Your task to perform on an android device: Search for "razer kraken" on amazon.com, select the first entry, add it to the cart, then select checkout. Image 0: 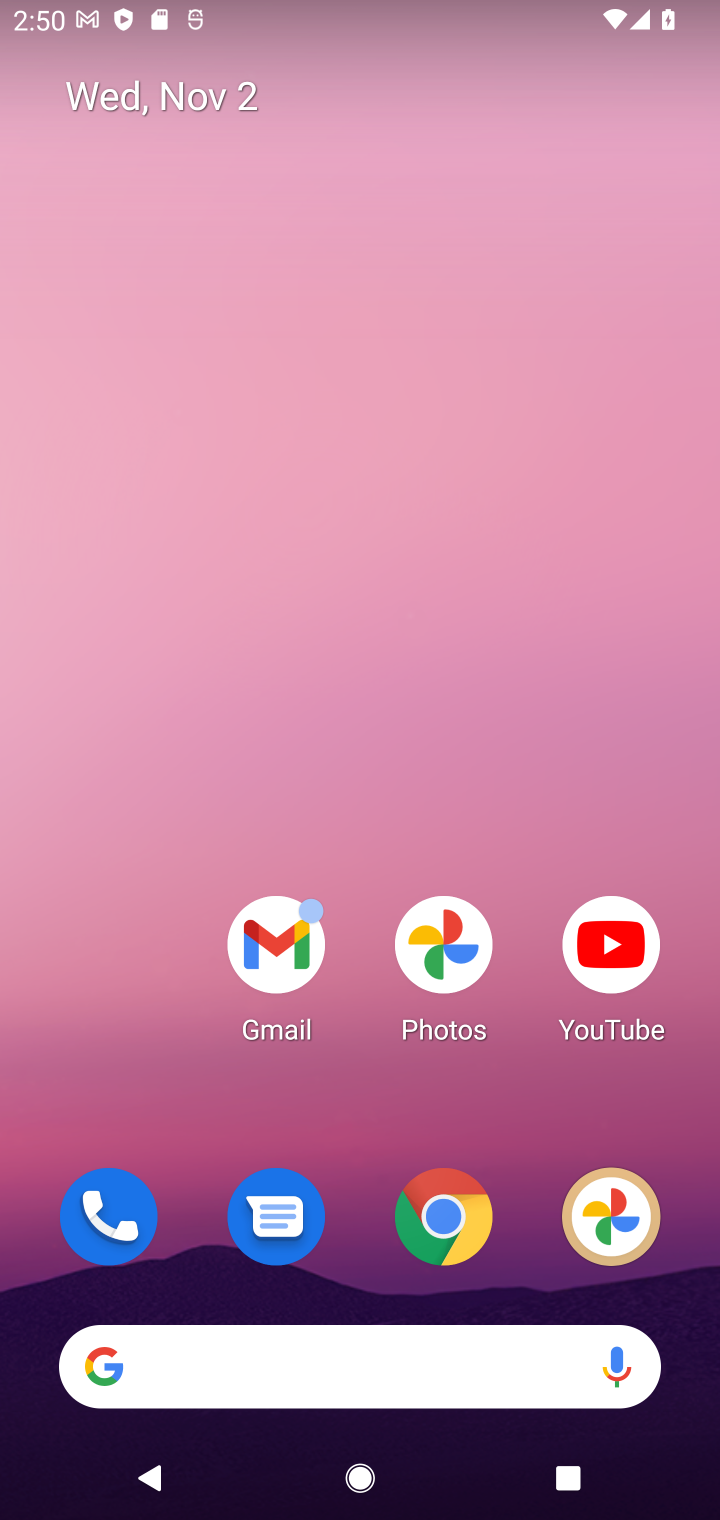
Step 0: click (449, 1201)
Your task to perform on an android device: Search for "razer kraken" on amazon.com, select the first entry, add it to the cart, then select checkout. Image 1: 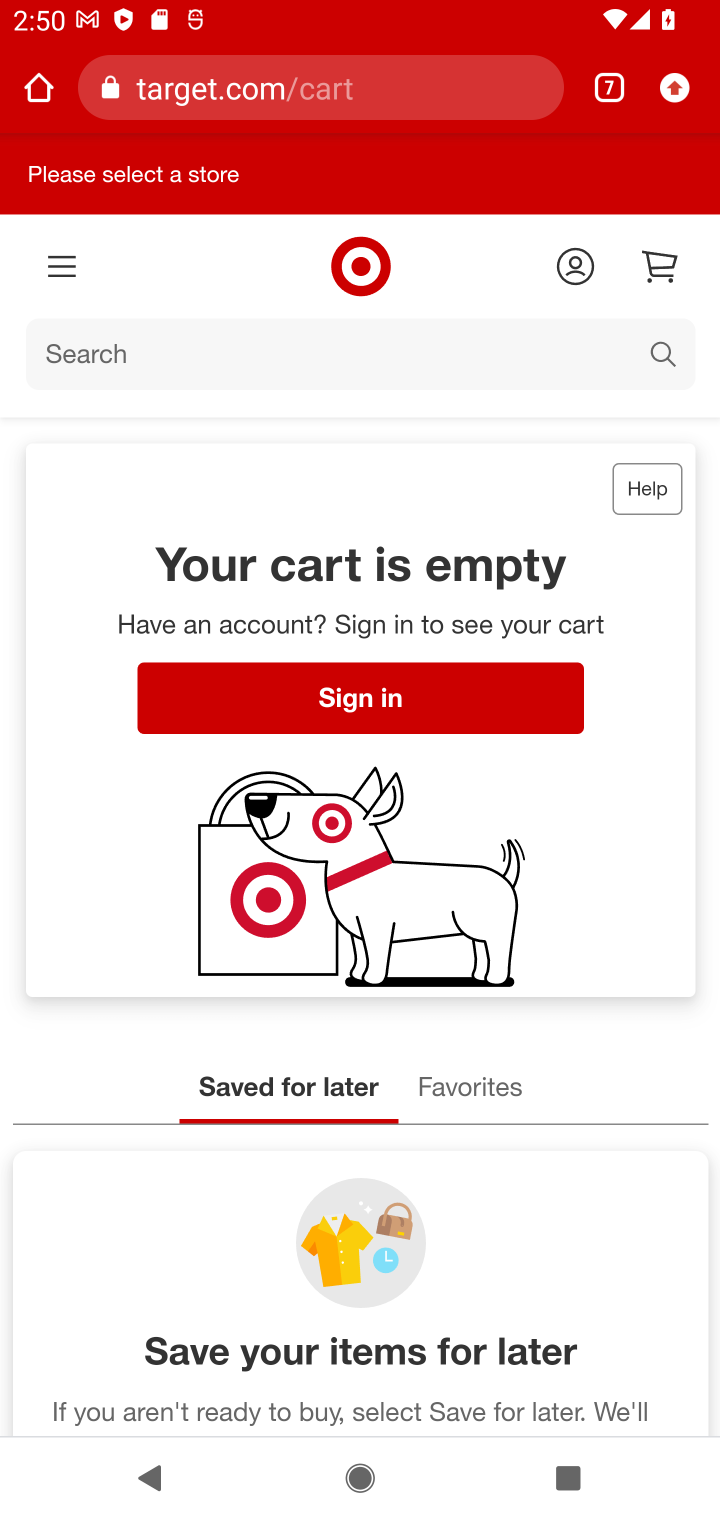
Step 1: click (612, 87)
Your task to perform on an android device: Search for "razer kraken" on amazon.com, select the first entry, add it to the cart, then select checkout. Image 2: 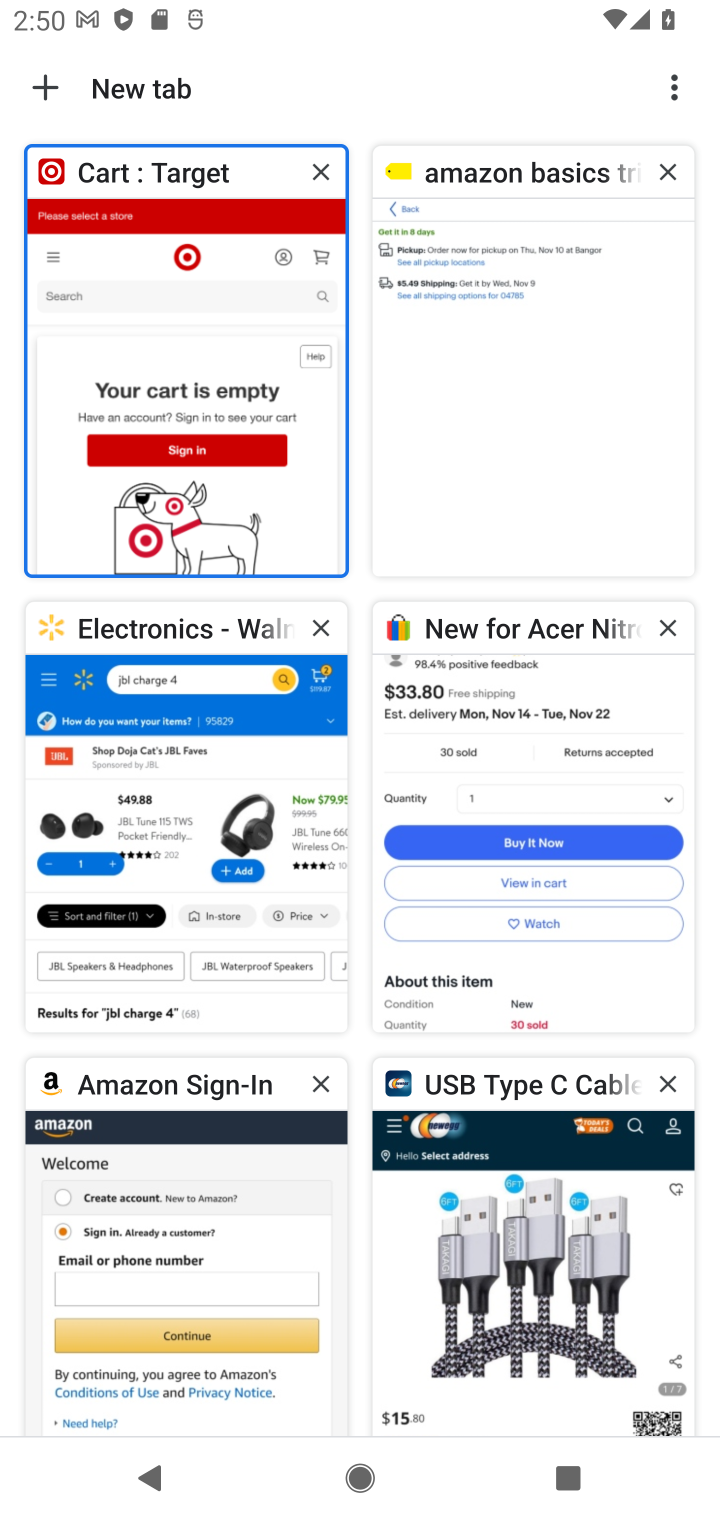
Step 2: click (239, 1255)
Your task to perform on an android device: Search for "razer kraken" on amazon.com, select the first entry, add it to the cart, then select checkout. Image 3: 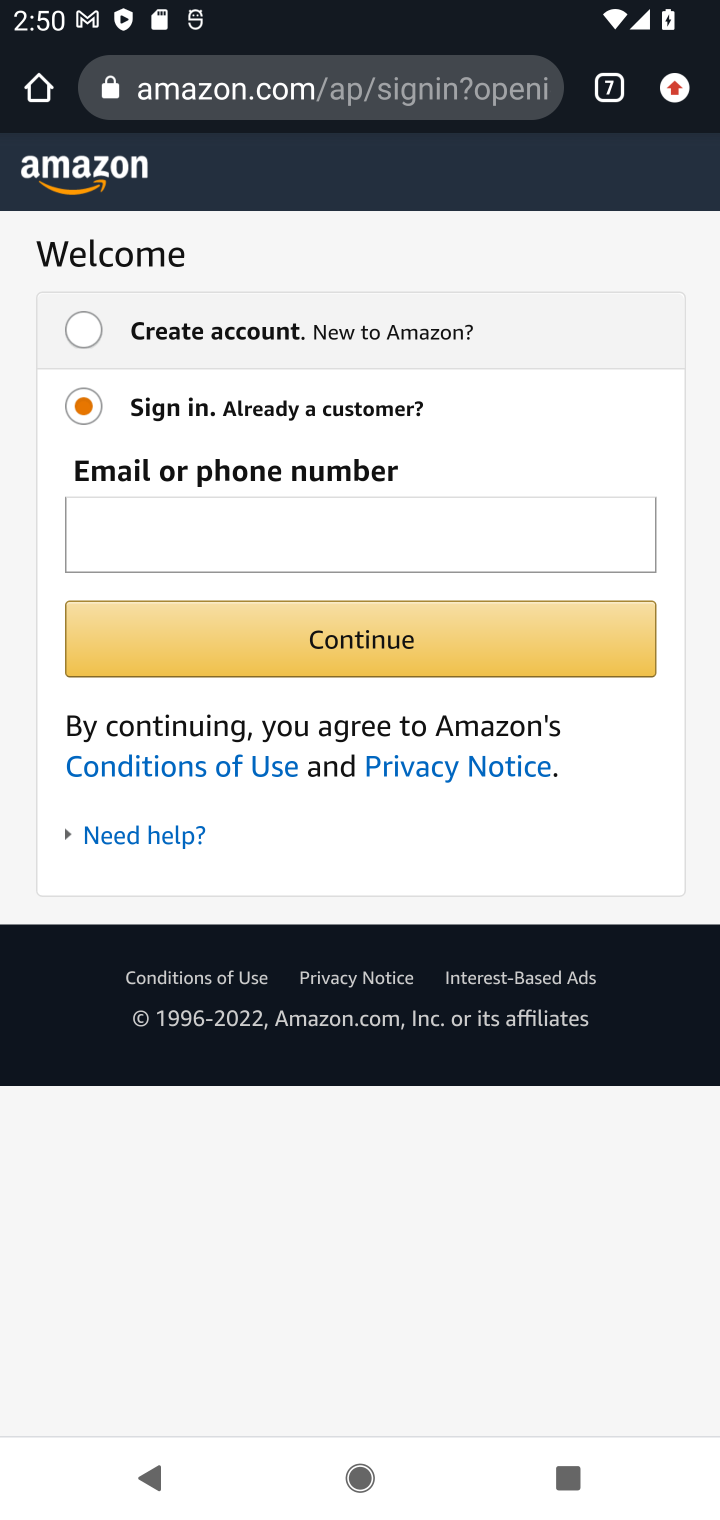
Step 3: press back button
Your task to perform on an android device: Search for "razer kraken" on amazon.com, select the first entry, add it to the cart, then select checkout. Image 4: 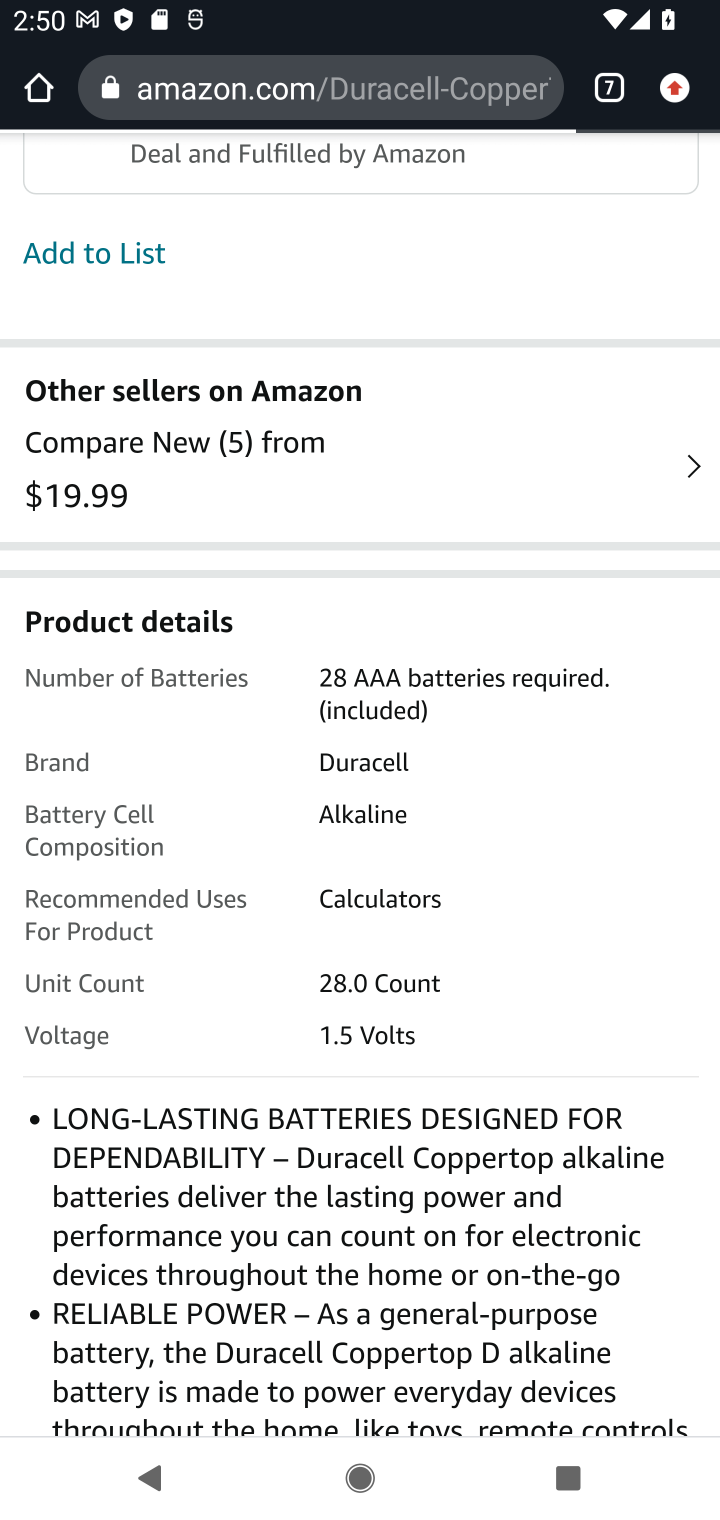
Step 4: drag from (441, 222) to (352, 701)
Your task to perform on an android device: Search for "razer kraken" on amazon.com, select the first entry, add it to the cart, then select checkout. Image 5: 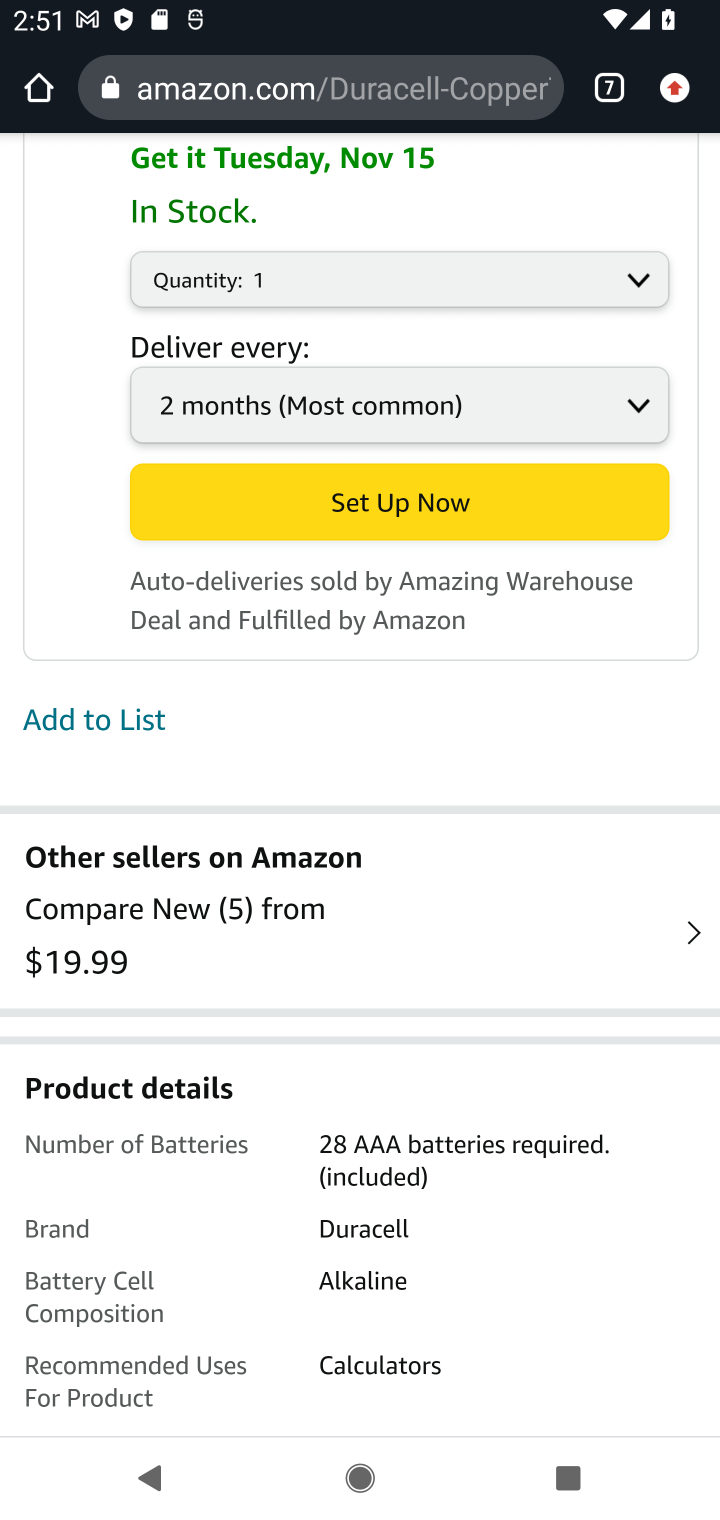
Step 5: drag from (448, 212) to (215, 1225)
Your task to perform on an android device: Search for "razer kraken" on amazon.com, select the first entry, add it to the cart, then select checkout. Image 6: 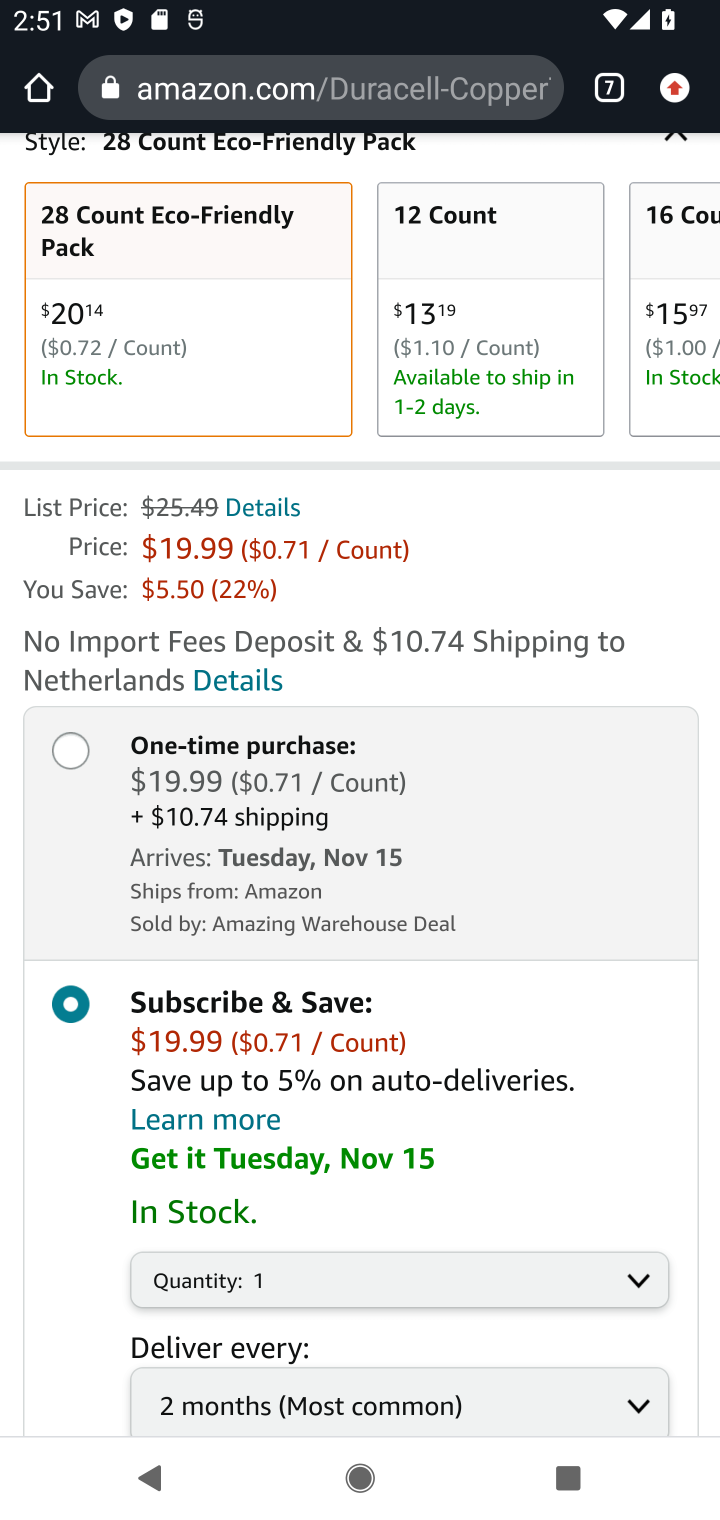
Step 6: drag from (280, 574) to (339, 1251)
Your task to perform on an android device: Search for "razer kraken" on amazon.com, select the first entry, add it to the cart, then select checkout. Image 7: 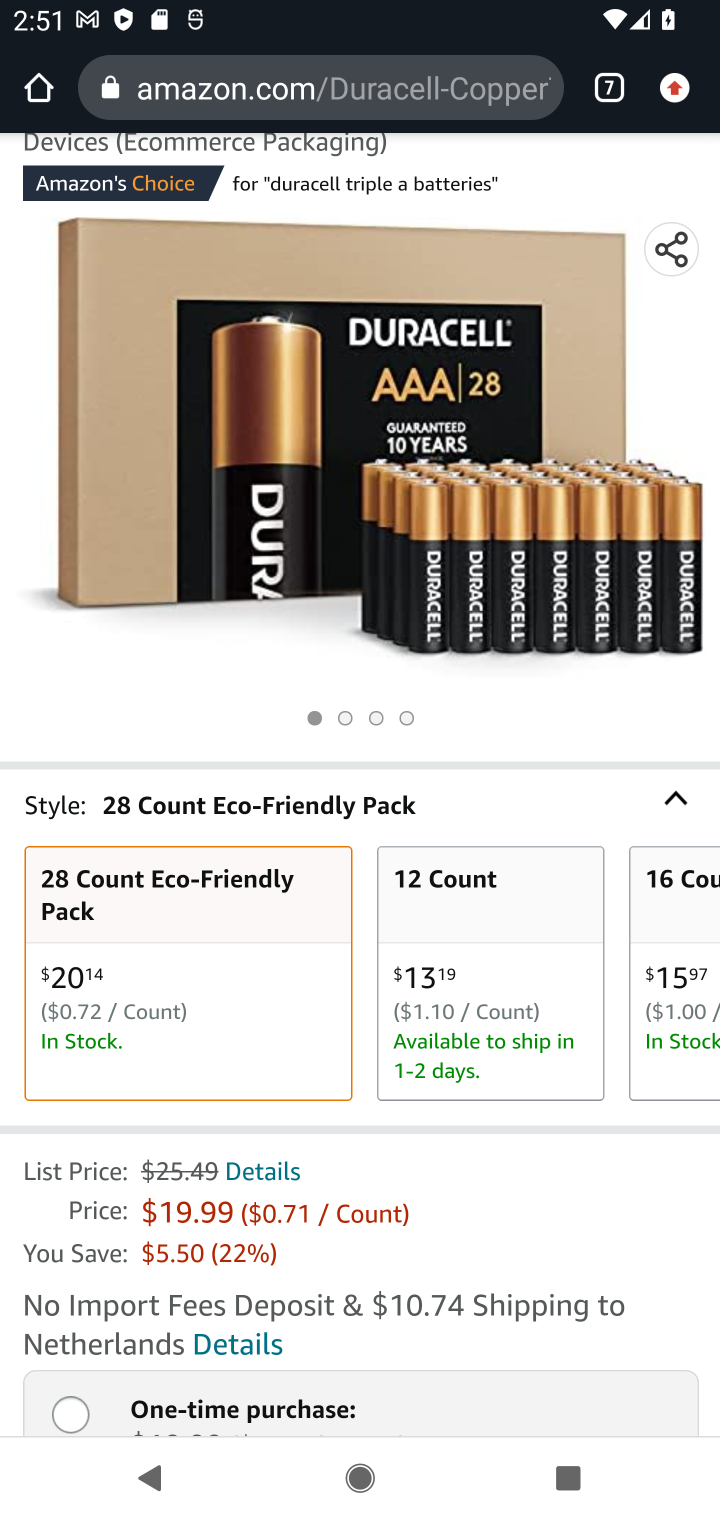
Step 7: drag from (518, 197) to (399, 1044)
Your task to perform on an android device: Search for "razer kraken" on amazon.com, select the first entry, add it to the cart, then select checkout. Image 8: 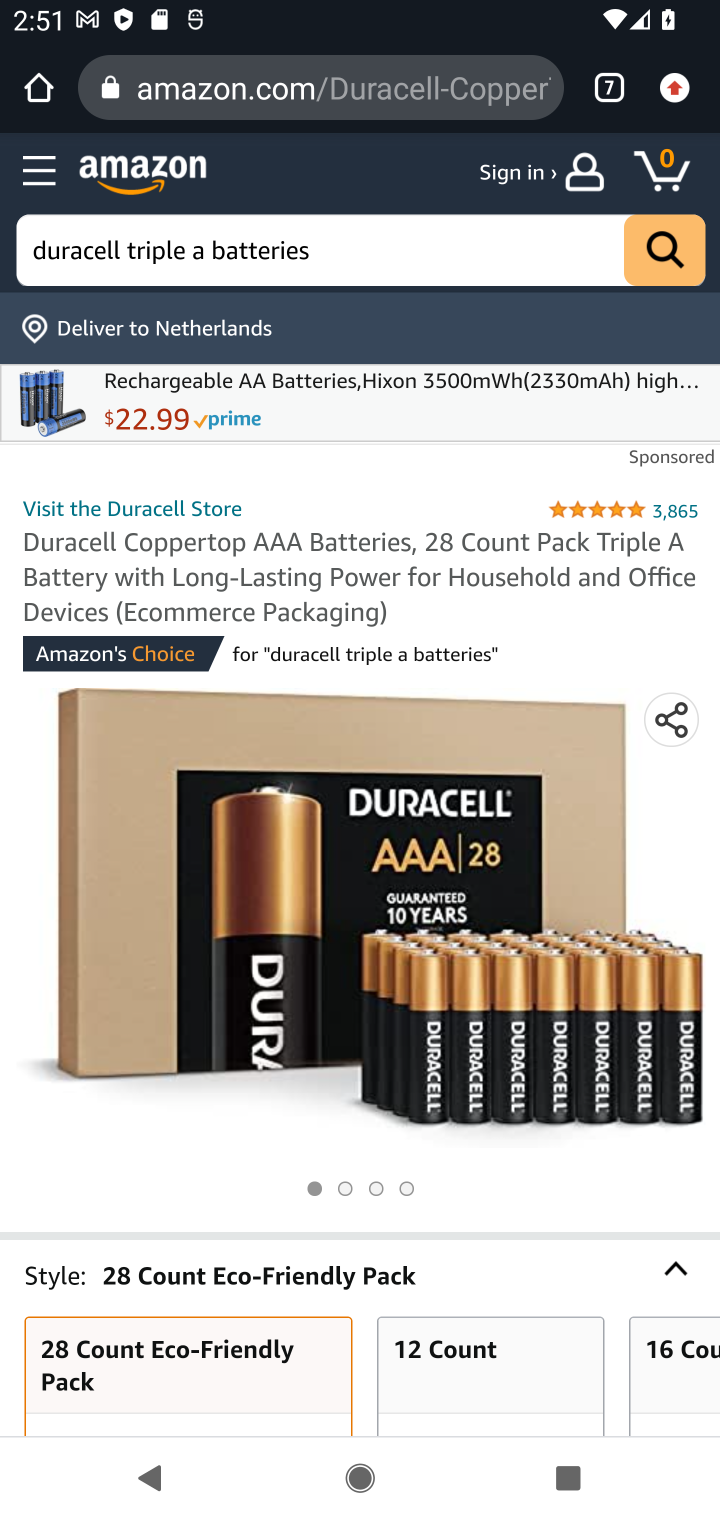
Step 8: click (435, 250)
Your task to perform on an android device: Search for "razer kraken" on amazon.com, select the first entry, add it to the cart, then select checkout. Image 9: 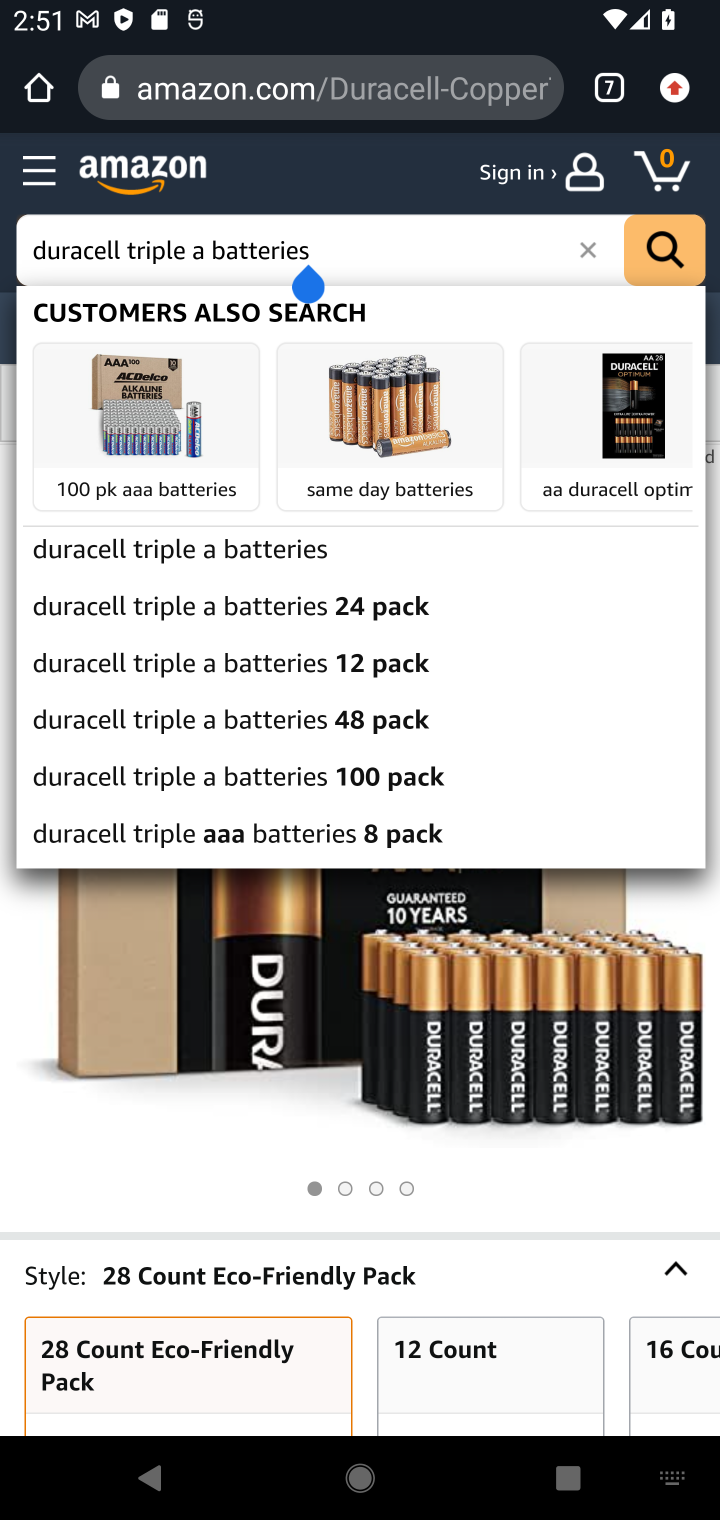
Step 9: click (581, 248)
Your task to perform on an android device: Search for "razer kraken" on amazon.com, select the first entry, add it to the cart, then select checkout. Image 10: 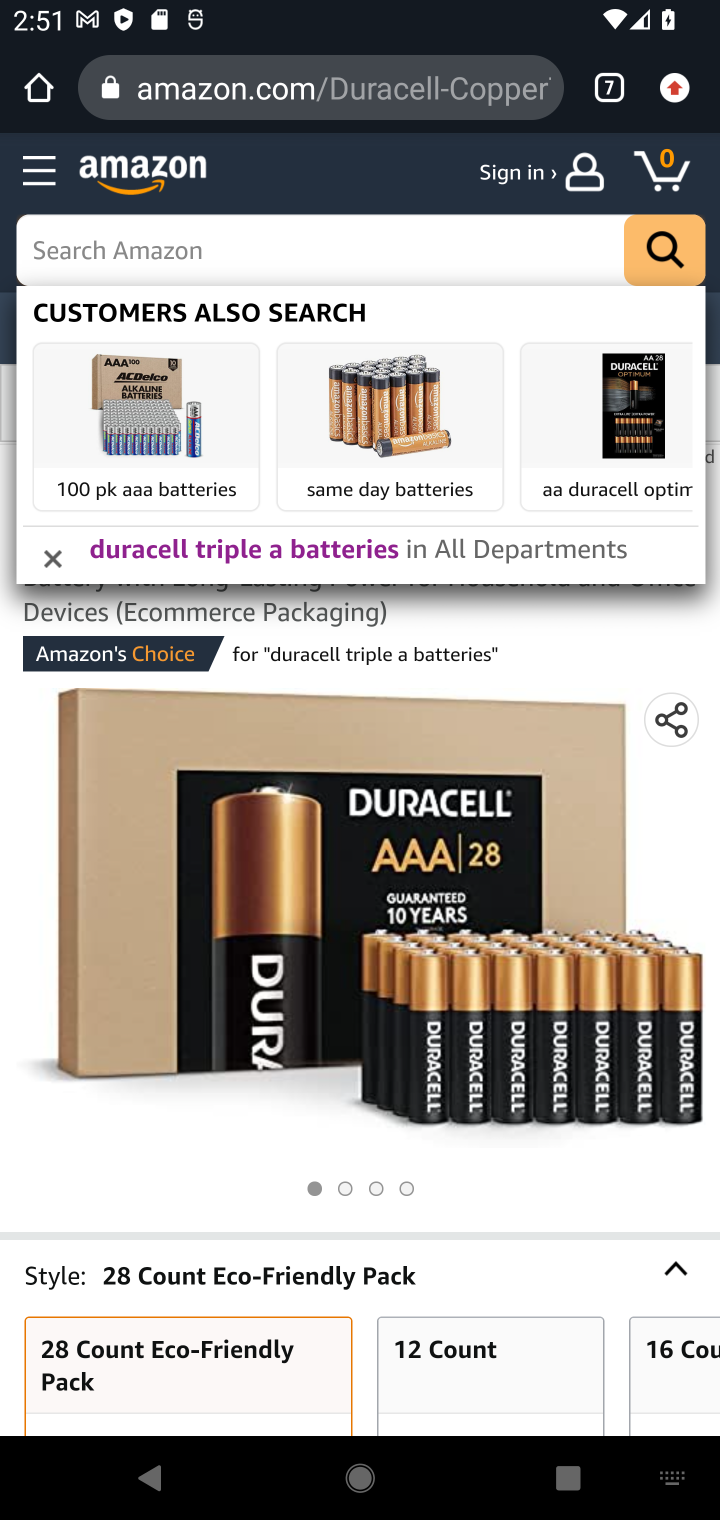
Step 10: type "razer kraken"
Your task to perform on an android device: Search for "razer kraken" on amazon.com, select the first entry, add it to the cart, then select checkout. Image 11: 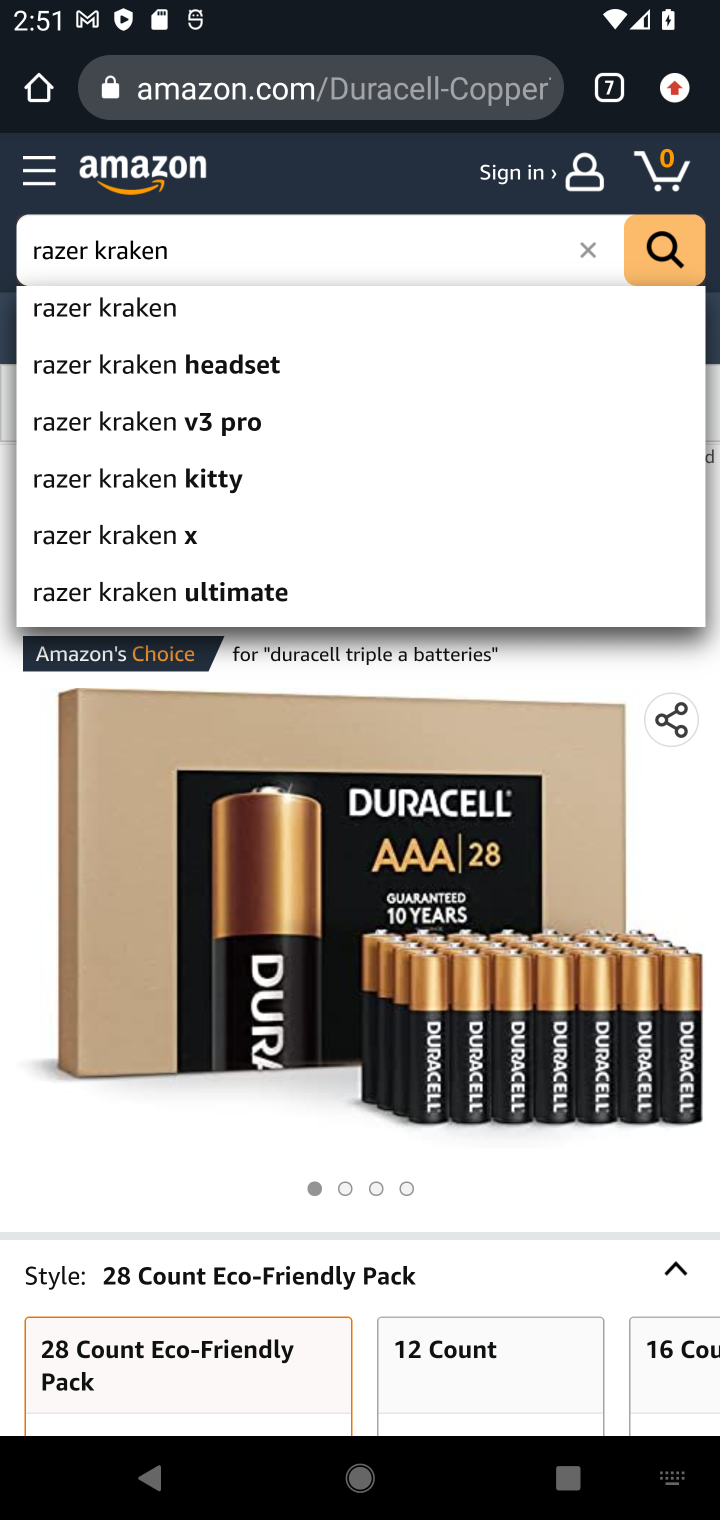
Step 11: click (160, 365)
Your task to perform on an android device: Search for "razer kraken" on amazon.com, select the first entry, add it to the cart, then select checkout. Image 12: 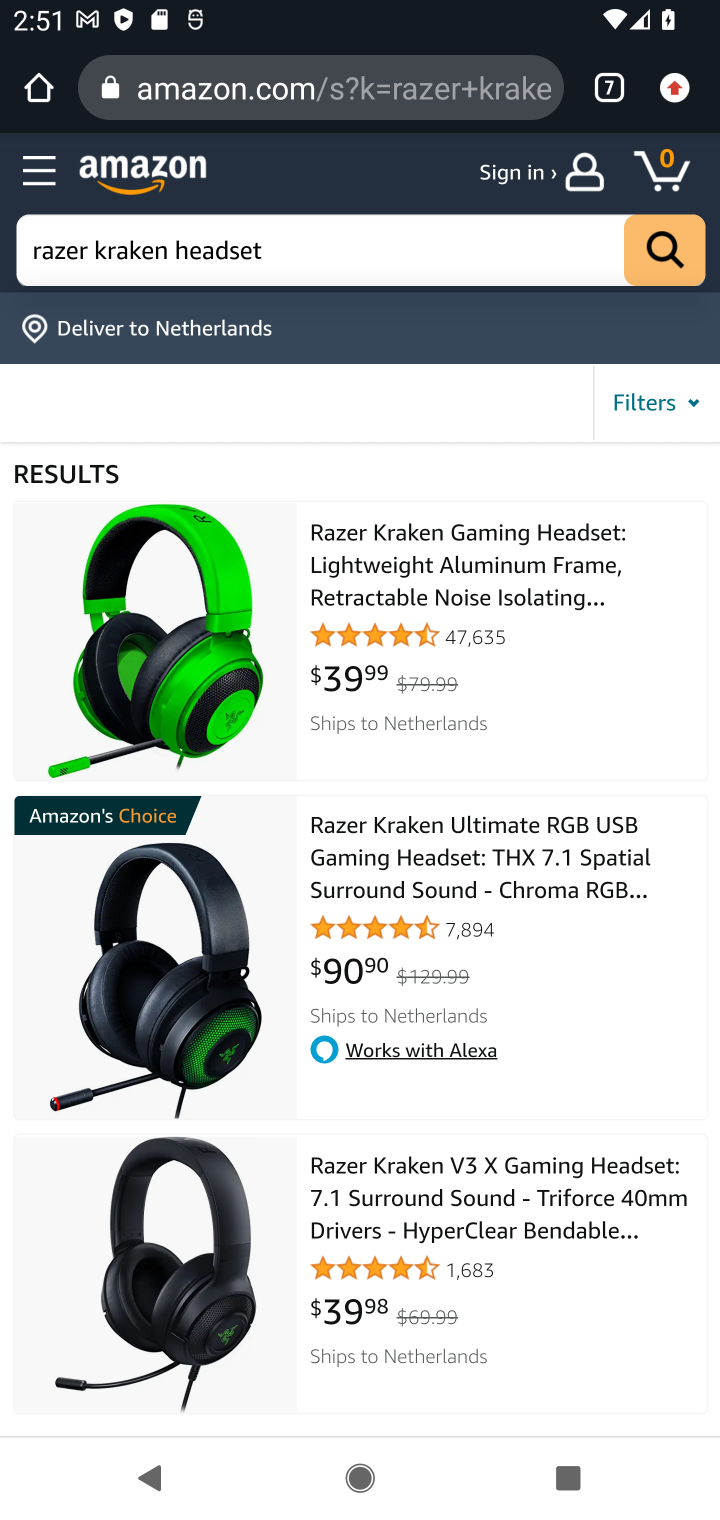
Step 12: click (506, 574)
Your task to perform on an android device: Search for "razer kraken" on amazon.com, select the first entry, add it to the cart, then select checkout. Image 13: 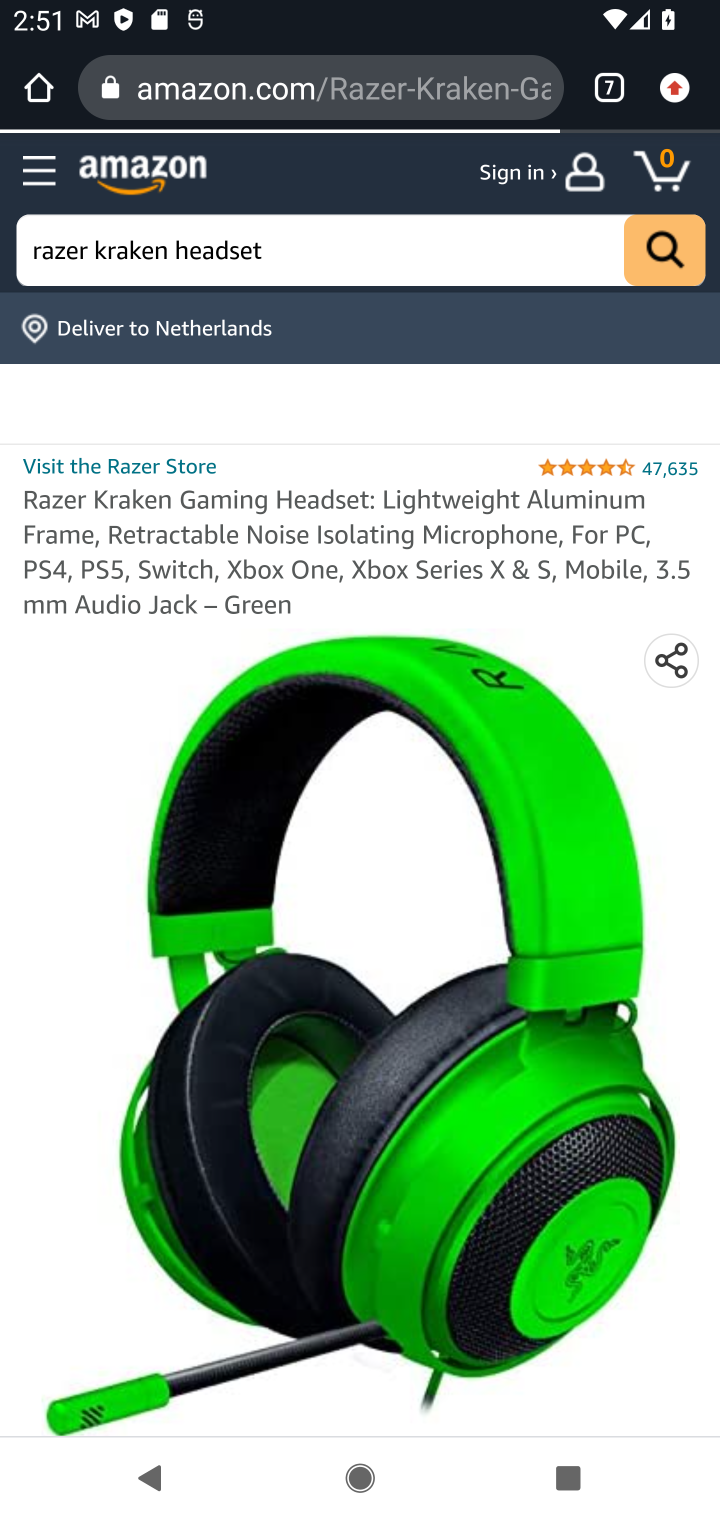
Step 13: drag from (257, 1243) to (358, 602)
Your task to perform on an android device: Search for "razer kraken" on amazon.com, select the first entry, add it to the cart, then select checkout. Image 14: 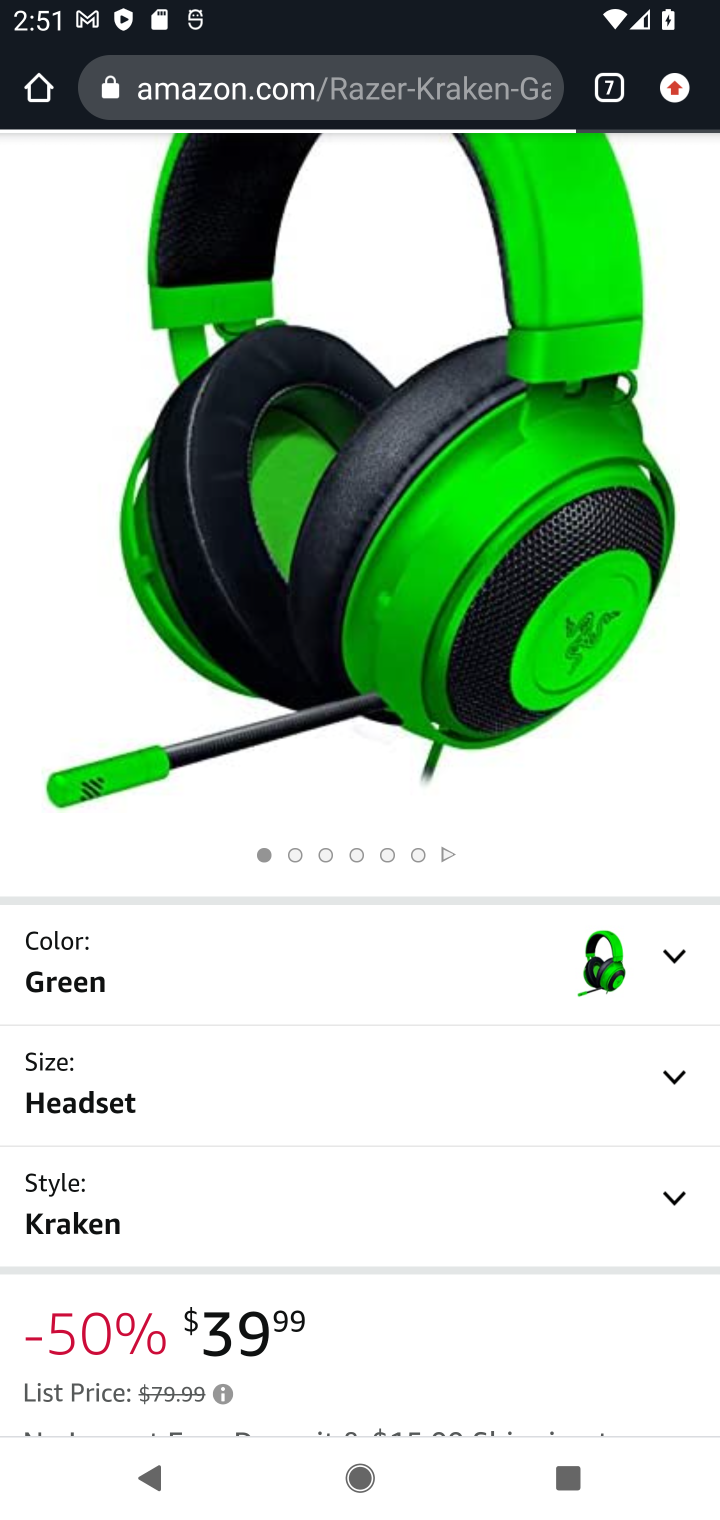
Step 14: drag from (404, 701) to (439, 560)
Your task to perform on an android device: Search for "razer kraken" on amazon.com, select the first entry, add it to the cart, then select checkout. Image 15: 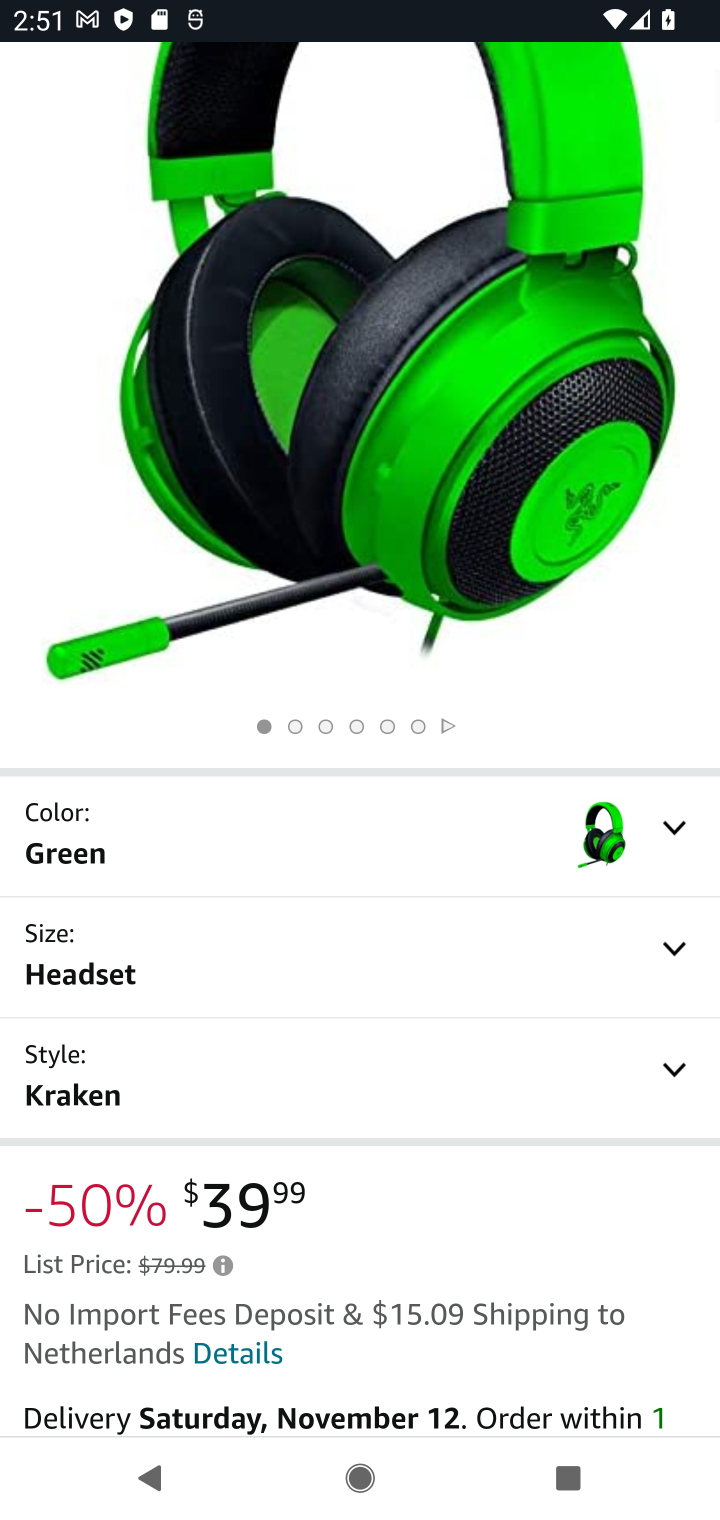
Step 15: drag from (397, 1103) to (477, 397)
Your task to perform on an android device: Search for "razer kraken" on amazon.com, select the first entry, add it to the cart, then select checkout. Image 16: 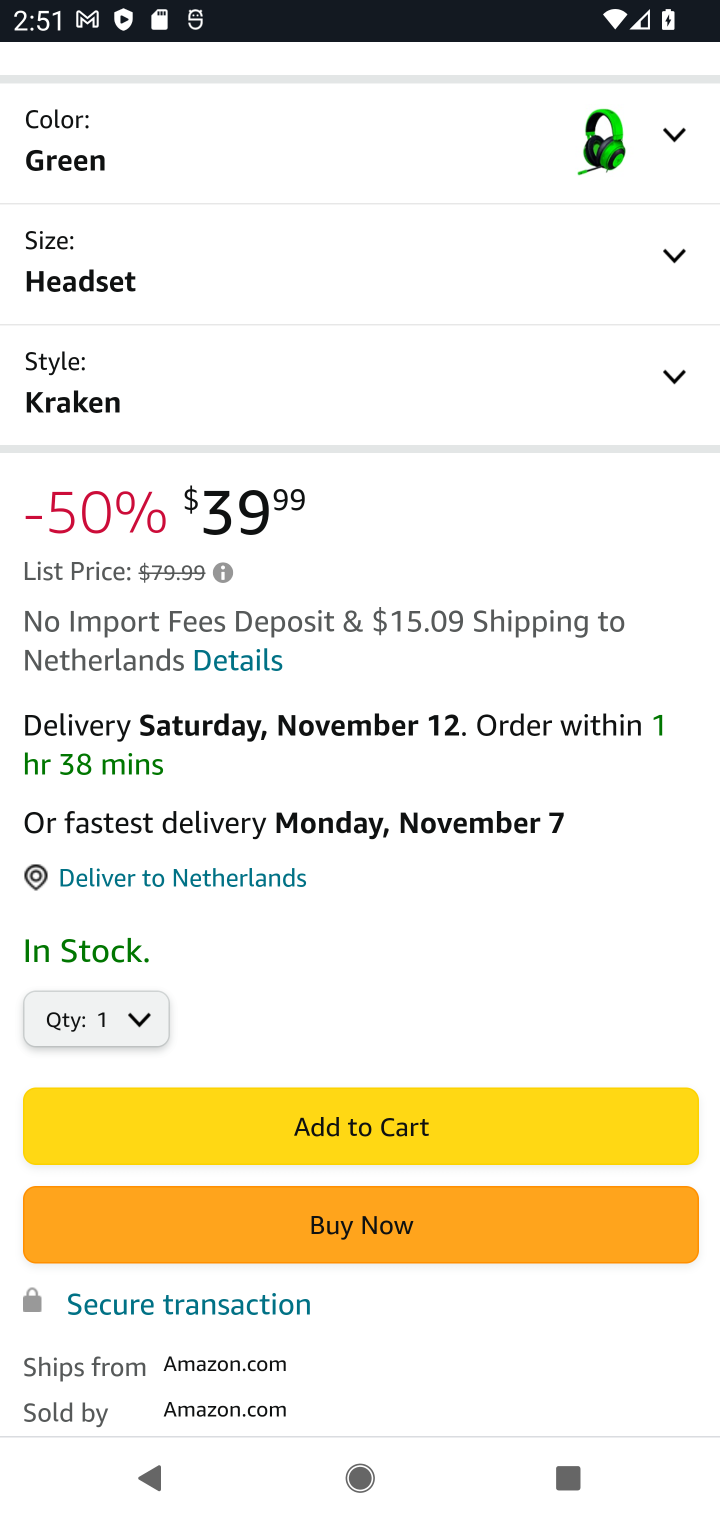
Step 16: click (367, 1117)
Your task to perform on an android device: Search for "razer kraken" on amazon.com, select the first entry, add it to the cart, then select checkout. Image 17: 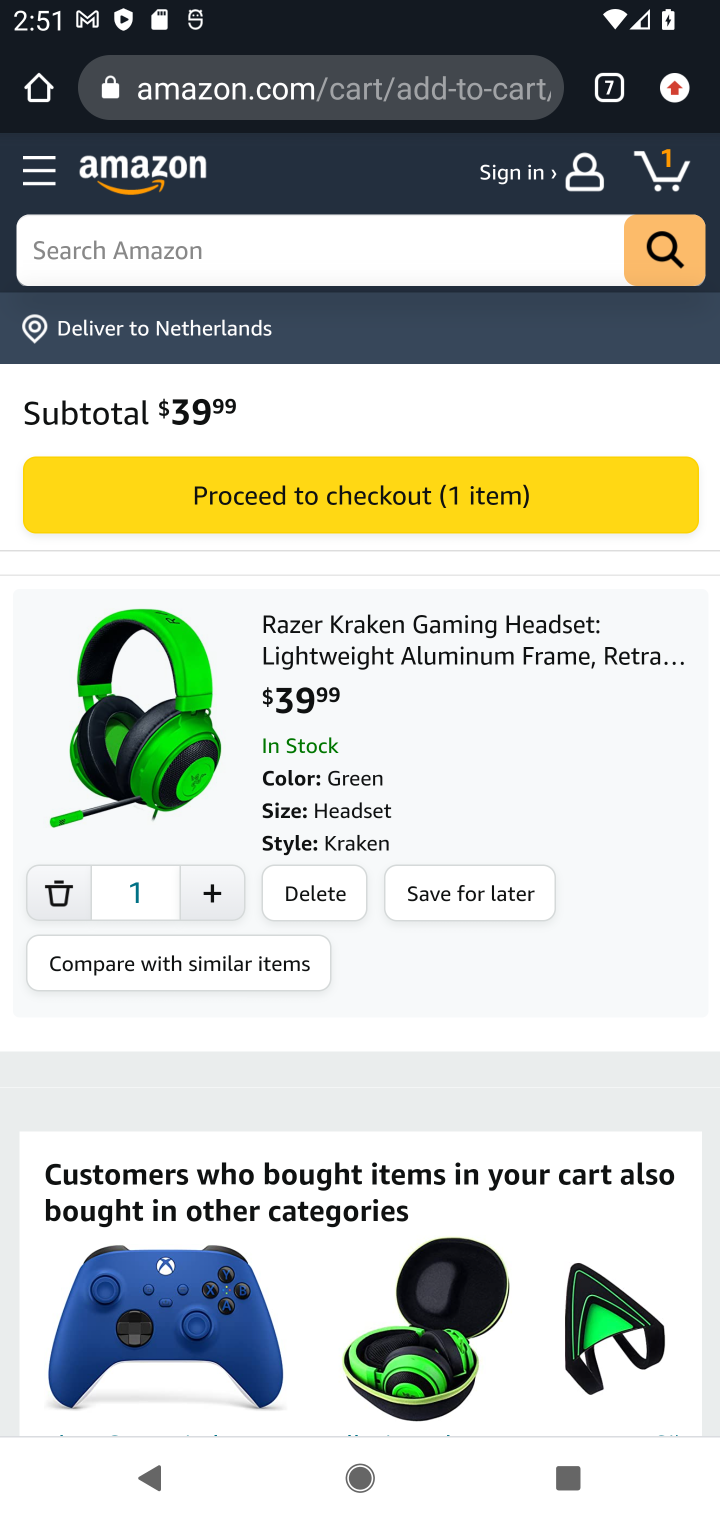
Step 17: task complete